Your task to perform on an android device: add a label to a message in the gmail app Image 0: 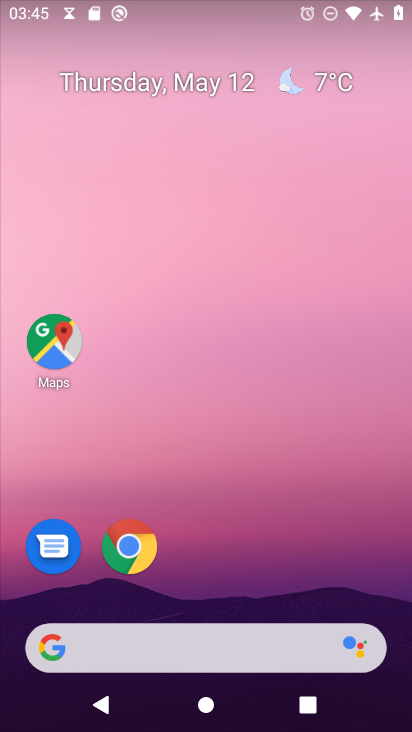
Step 0: press home button
Your task to perform on an android device: add a label to a message in the gmail app Image 1: 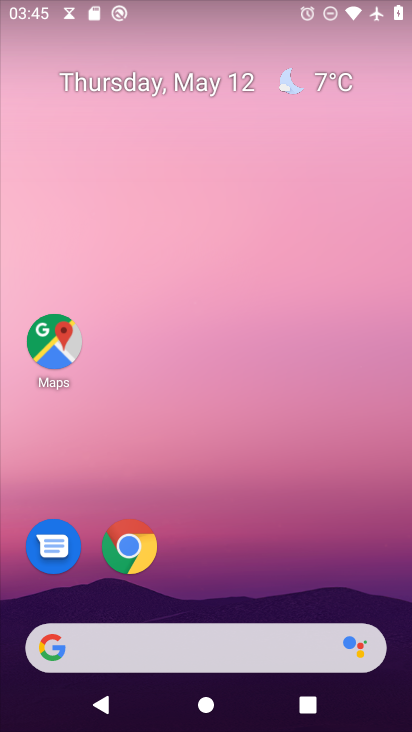
Step 1: drag from (225, 632) to (355, 146)
Your task to perform on an android device: add a label to a message in the gmail app Image 2: 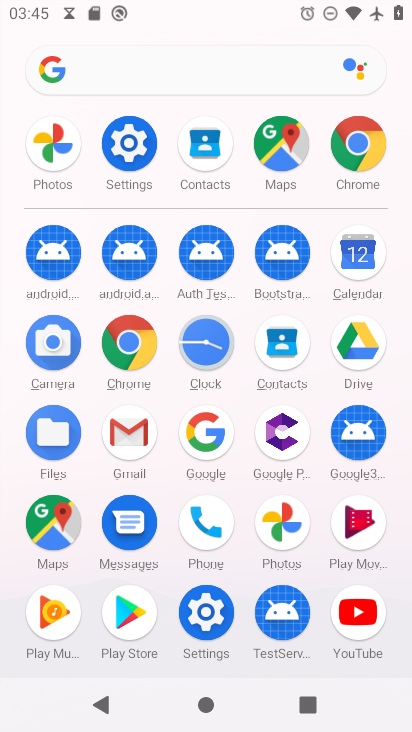
Step 2: click (127, 437)
Your task to perform on an android device: add a label to a message in the gmail app Image 3: 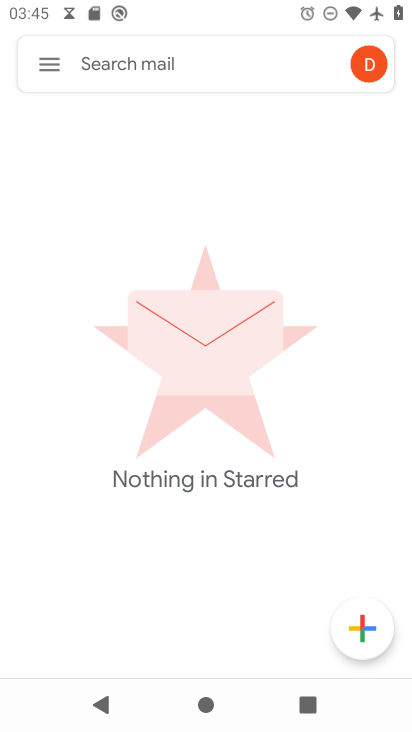
Step 3: task complete